Your task to perform on an android device: Go to Google maps Image 0: 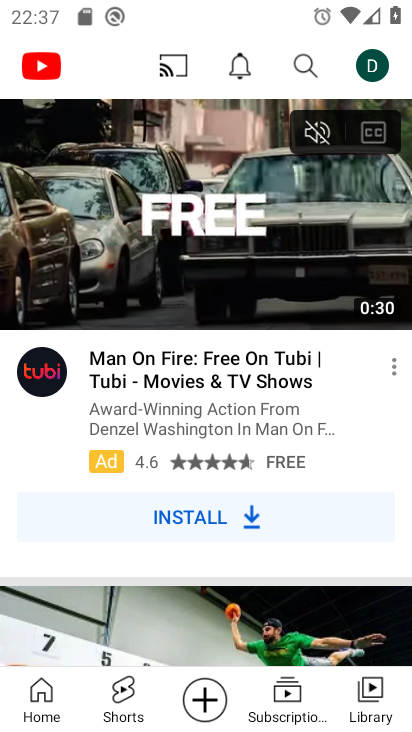
Step 0: press home button
Your task to perform on an android device: Go to Google maps Image 1: 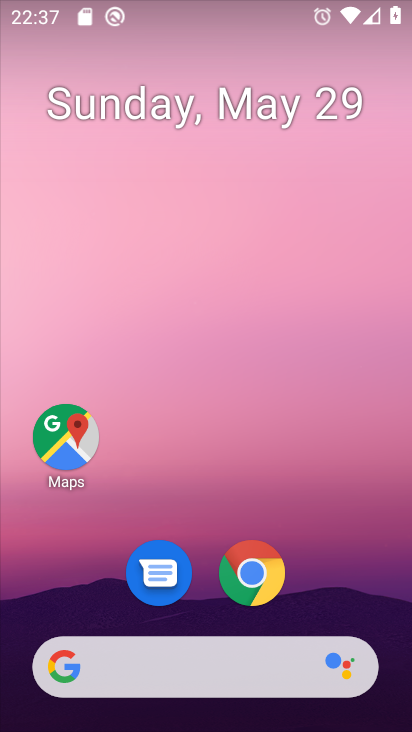
Step 1: click (59, 433)
Your task to perform on an android device: Go to Google maps Image 2: 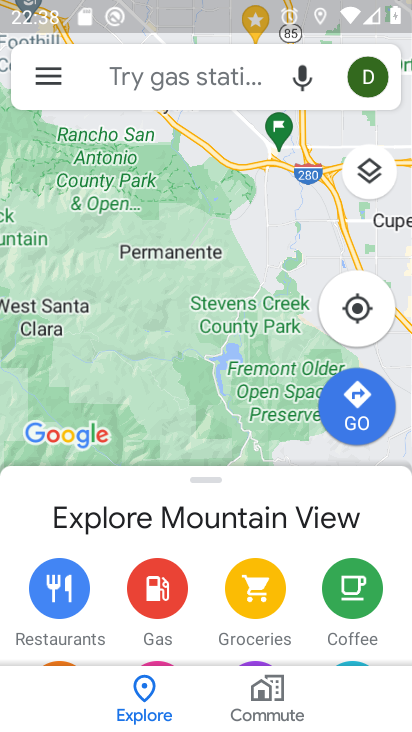
Step 2: task complete